Your task to perform on an android device: set the stopwatch Image 0: 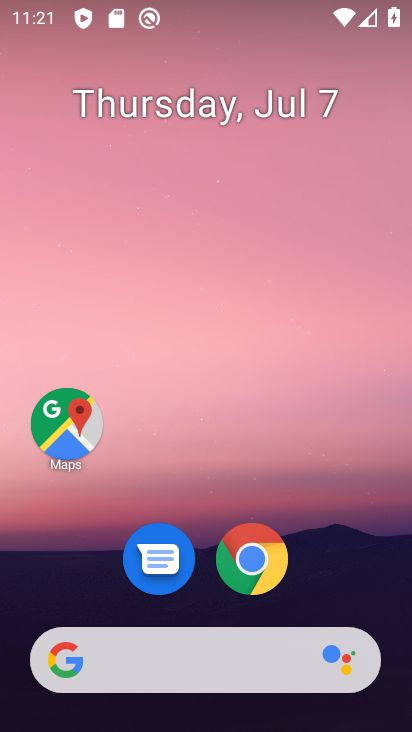
Step 0: drag from (374, 573) to (407, 190)
Your task to perform on an android device: set the stopwatch Image 1: 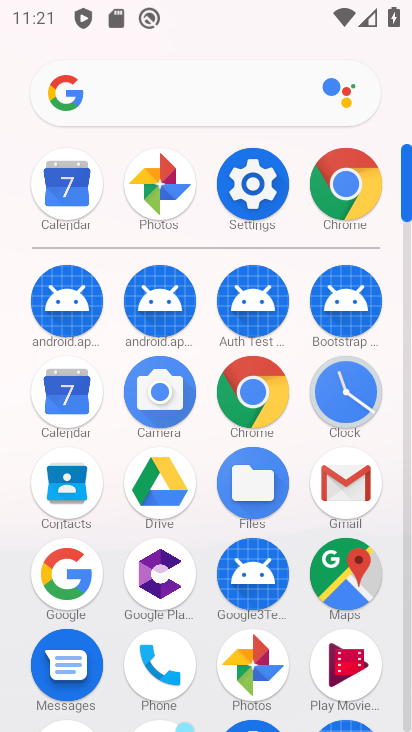
Step 1: click (379, 395)
Your task to perform on an android device: set the stopwatch Image 2: 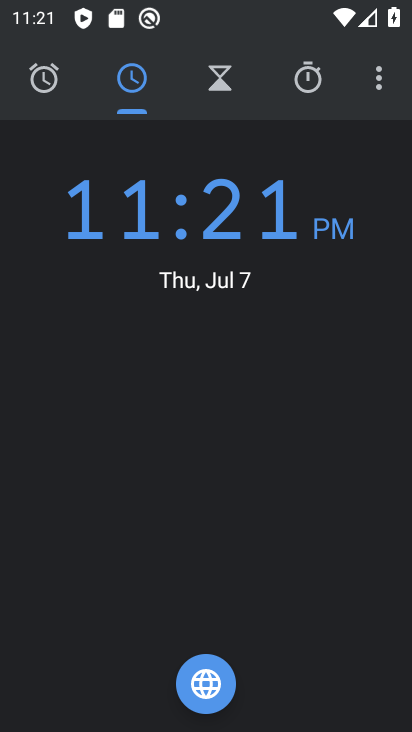
Step 2: click (311, 83)
Your task to perform on an android device: set the stopwatch Image 3: 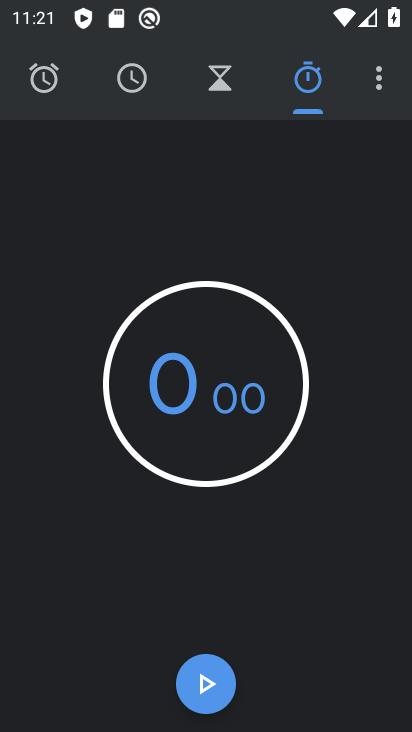
Step 3: click (216, 685)
Your task to perform on an android device: set the stopwatch Image 4: 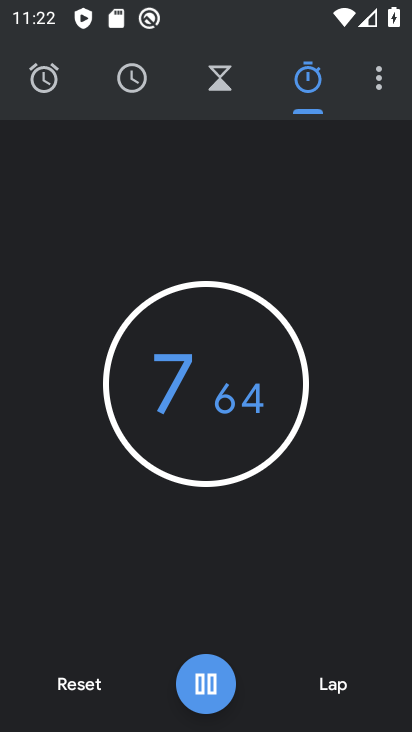
Step 4: task complete